Your task to perform on an android device: turn off data saver in the chrome app Image 0: 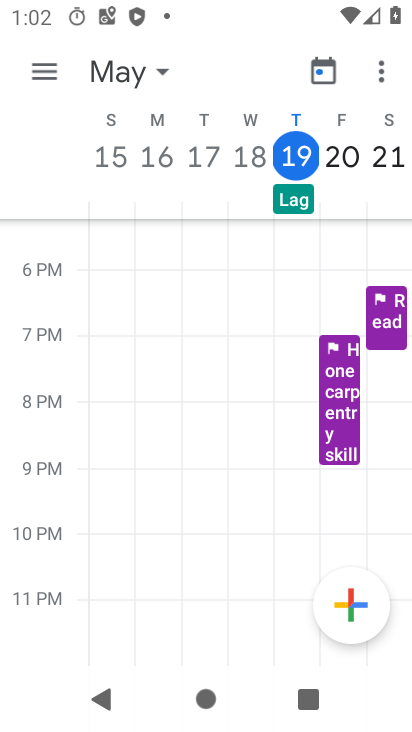
Step 0: press home button
Your task to perform on an android device: turn off data saver in the chrome app Image 1: 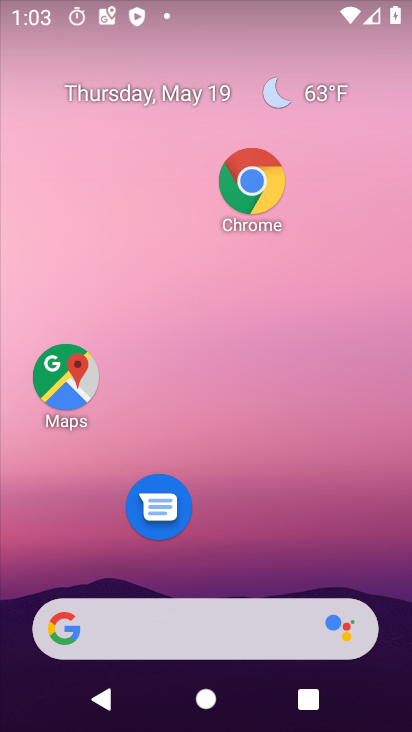
Step 1: drag from (282, 531) to (172, 118)
Your task to perform on an android device: turn off data saver in the chrome app Image 2: 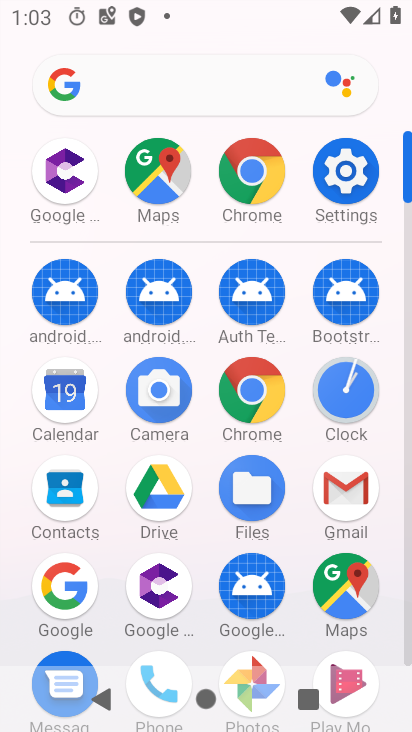
Step 2: click (259, 425)
Your task to perform on an android device: turn off data saver in the chrome app Image 3: 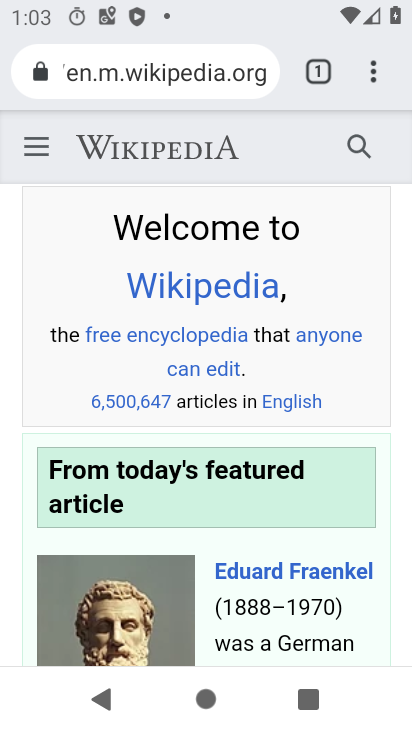
Step 3: click (379, 75)
Your task to perform on an android device: turn off data saver in the chrome app Image 4: 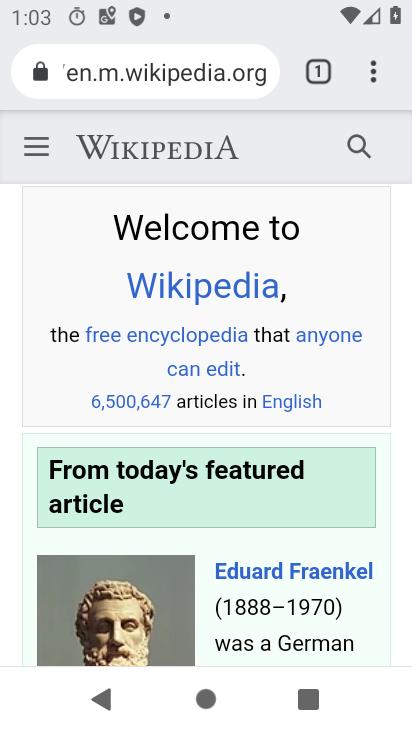
Step 4: click (375, 79)
Your task to perform on an android device: turn off data saver in the chrome app Image 5: 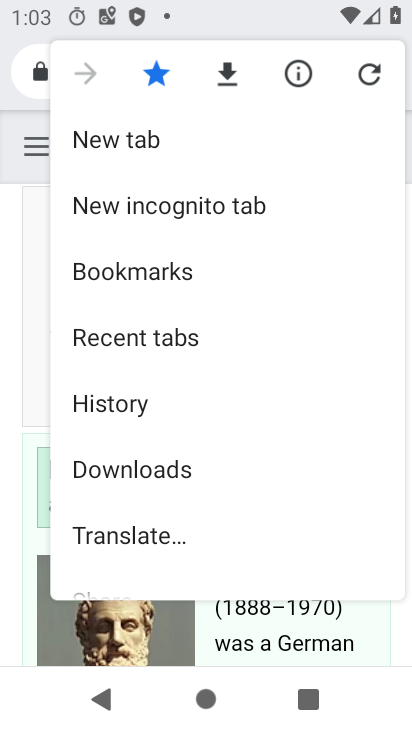
Step 5: drag from (160, 357) to (196, 94)
Your task to perform on an android device: turn off data saver in the chrome app Image 6: 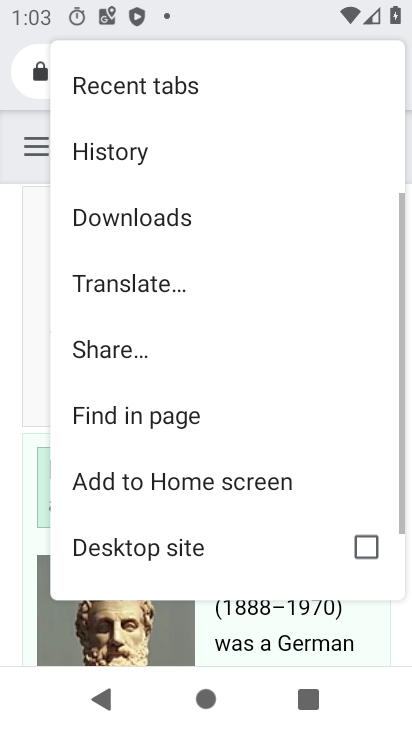
Step 6: drag from (150, 498) to (189, 158)
Your task to perform on an android device: turn off data saver in the chrome app Image 7: 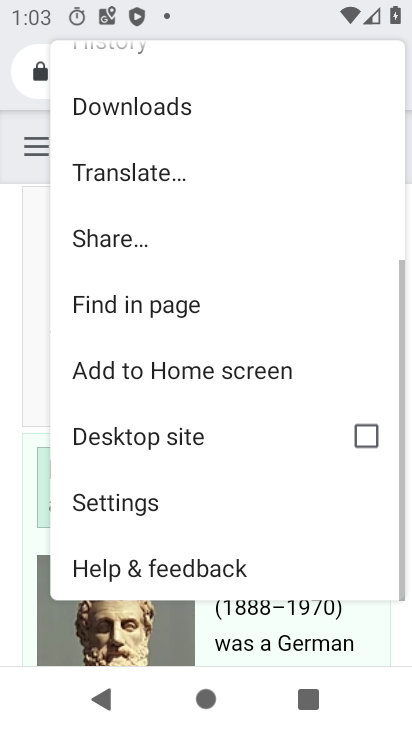
Step 7: click (118, 504)
Your task to perform on an android device: turn off data saver in the chrome app Image 8: 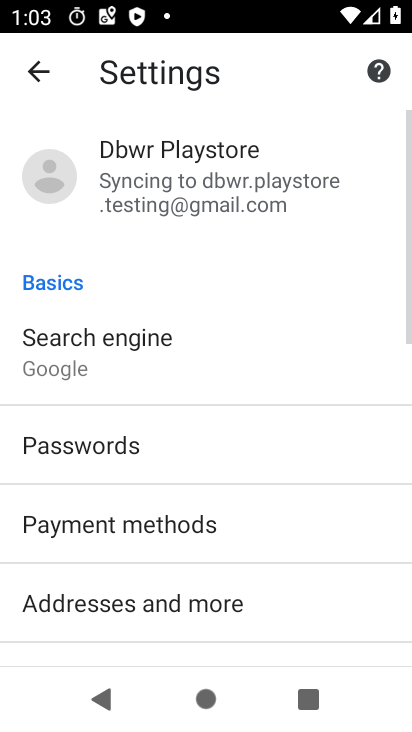
Step 8: drag from (160, 597) to (125, 227)
Your task to perform on an android device: turn off data saver in the chrome app Image 9: 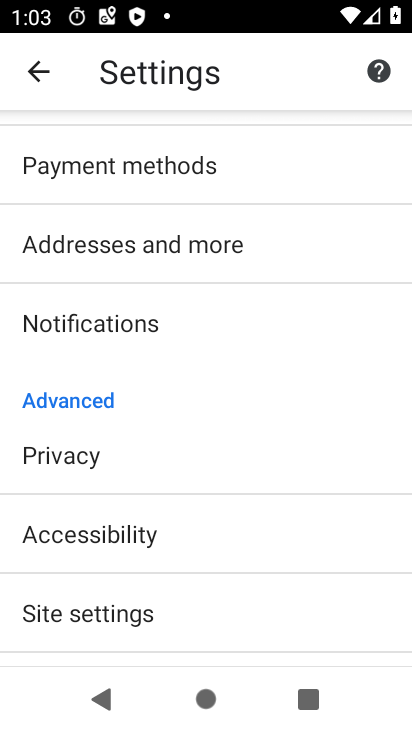
Step 9: drag from (133, 581) to (166, 239)
Your task to perform on an android device: turn off data saver in the chrome app Image 10: 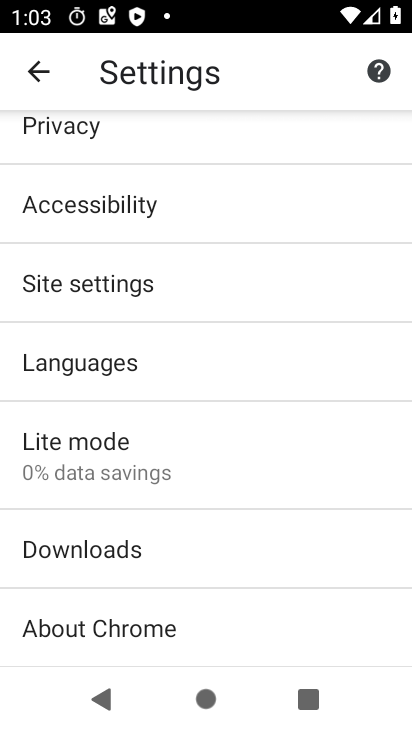
Step 10: click (98, 480)
Your task to perform on an android device: turn off data saver in the chrome app Image 11: 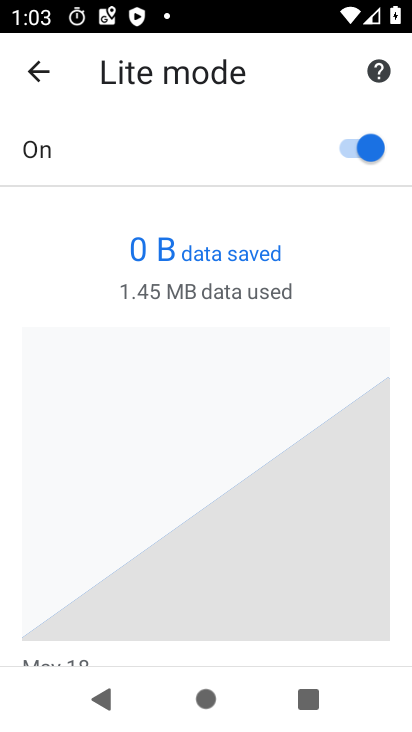
Step 11: click (347, 148)
Your task to perform on an android device: turn off data saver in the chrome app Image 12: 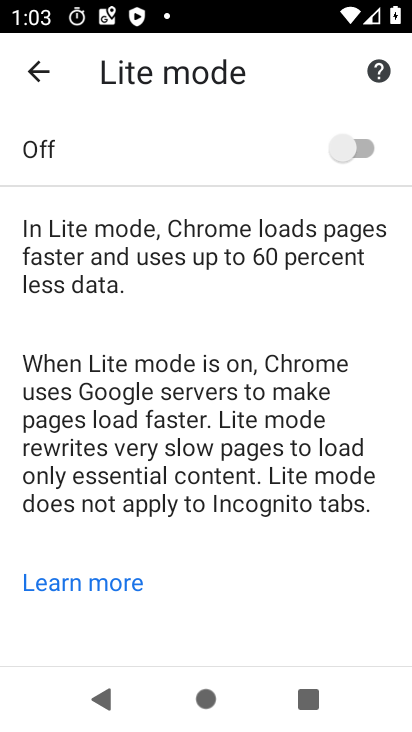
Step 12: task complete